Your task to perform on an android device: open app "TextNow: Call + Text Unlimited" Image 0: 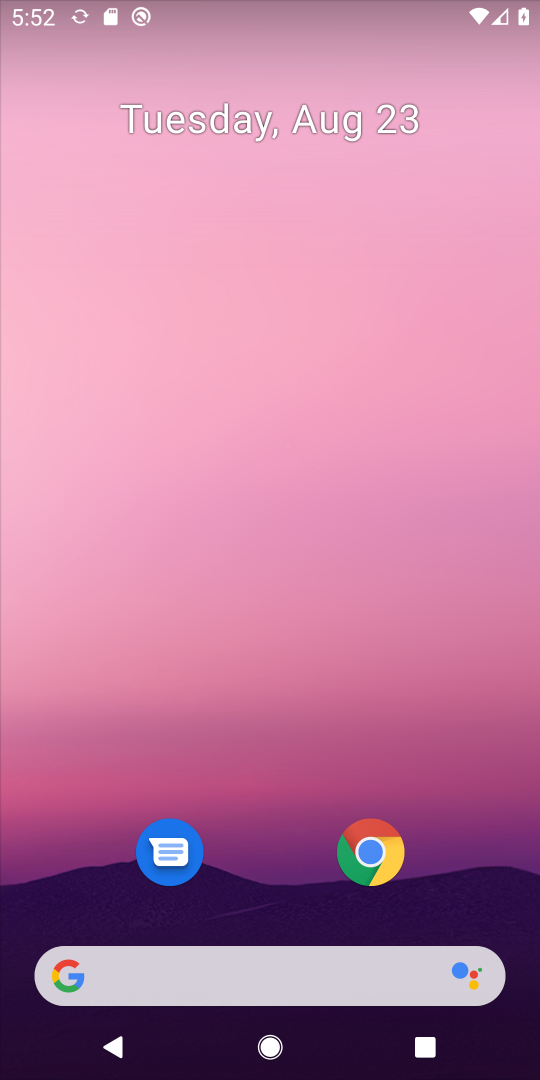
Step 0: drag from (281, 963) to (388, 26)
Your task to perform on an android device: open app "TextNow: Call + Text Unlimited" Image 1: 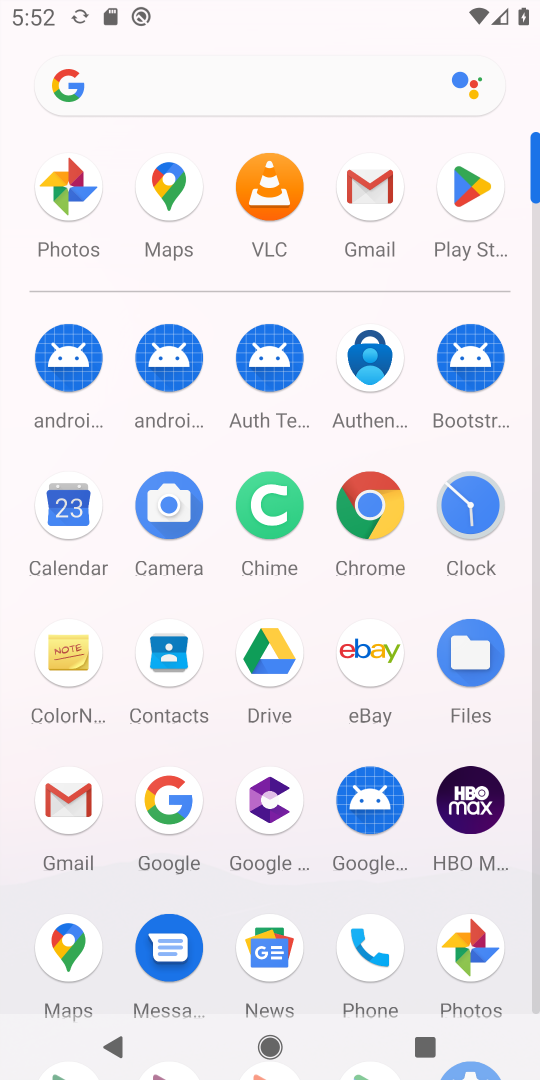
Step 1: click (480, 201)
Your task to perform on an android device: open app "TextNow: Call + Text Unlimited" Image 2: 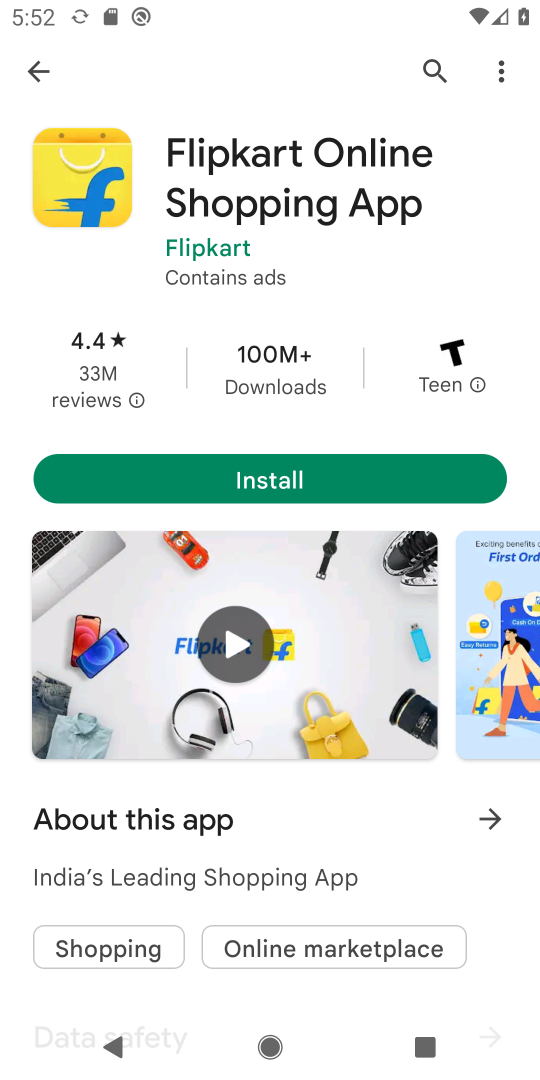
Step 2: press back button
Your task to perform on an android device: open app "TextNow: Call + Text Unlimited" Image 3: 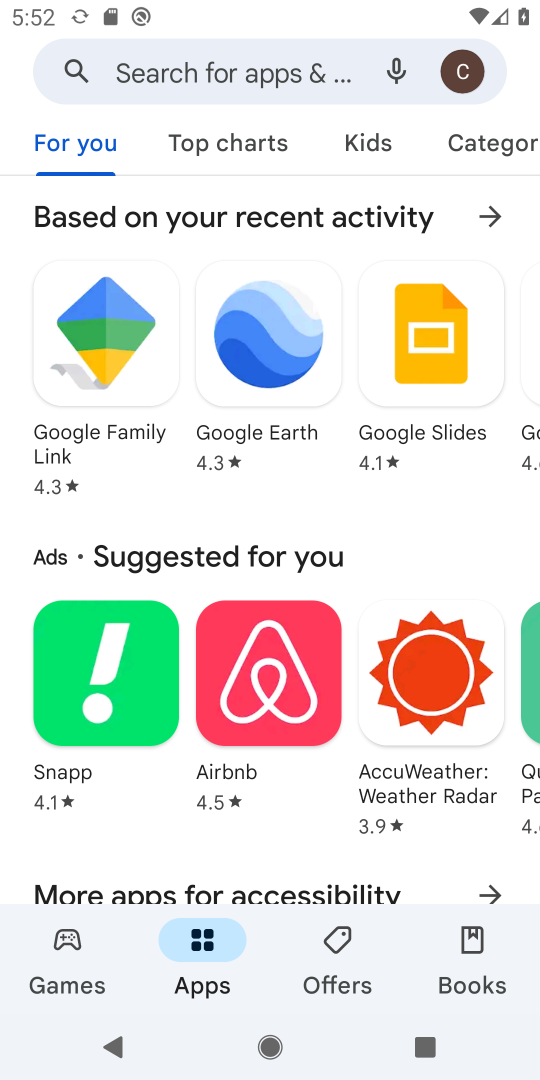
Step 3: click (287, 68)
Your task to perform on an android device: open app "TextNow: Call + Text Unlimited" Image 4: 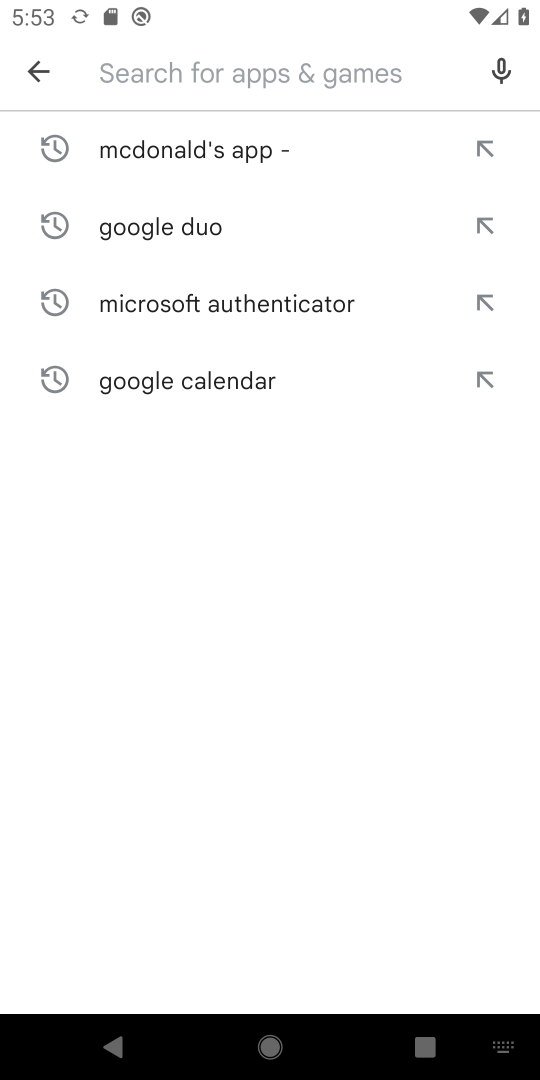
Step 4: type "TextNow: Call + Text Unlimited"
Your task to perform on an android device: open app "TextNow: Call + Text Unlimited" Image 5: 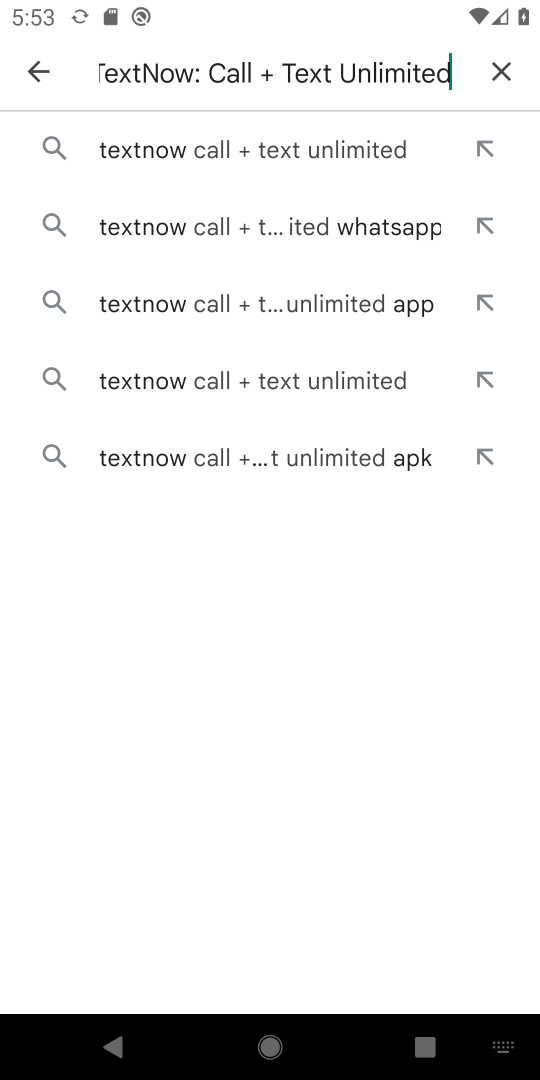
Step 5: click (385, 160)
Your task to perform on an android device: open app "TextNow: Call + Text Unlimited" Image 6: 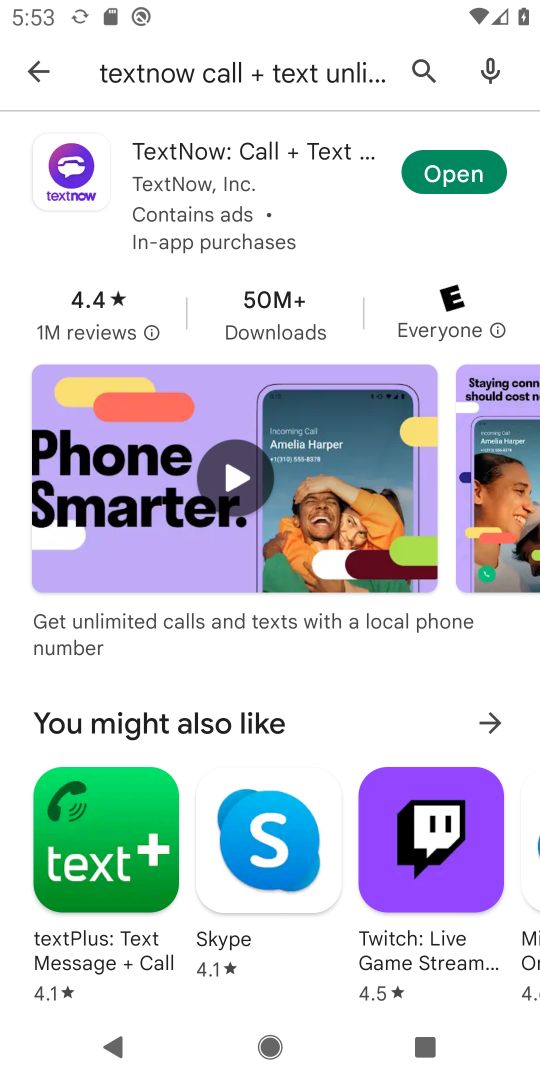
Step 6: click (466, 177)
Your task to perform on an android device: open app "TextNow: Call + Text Unlimited" Image 7: 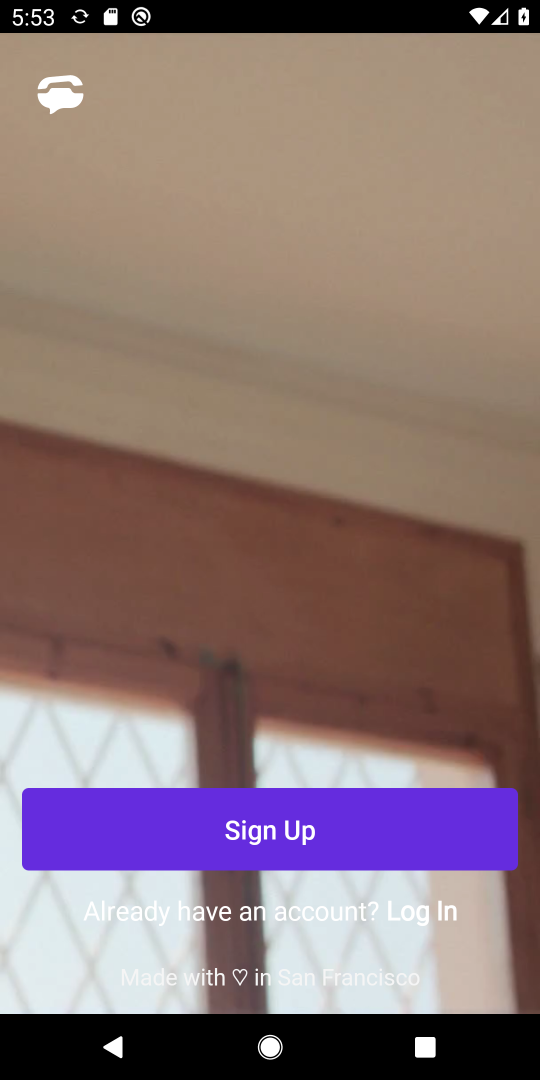
Step 7: task complete